Your task to perform on an android device: turn vacation reply on in the gmail app Image 0: 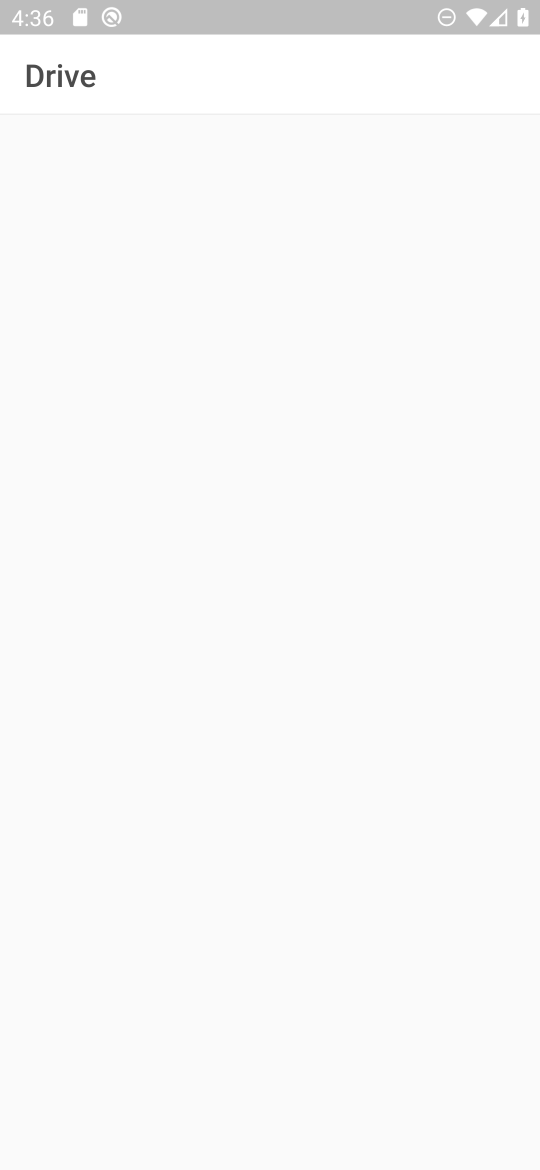
Step 0: press home button
Your task to perform on an android device: turn vacation reply on in the gmail app Image 1: 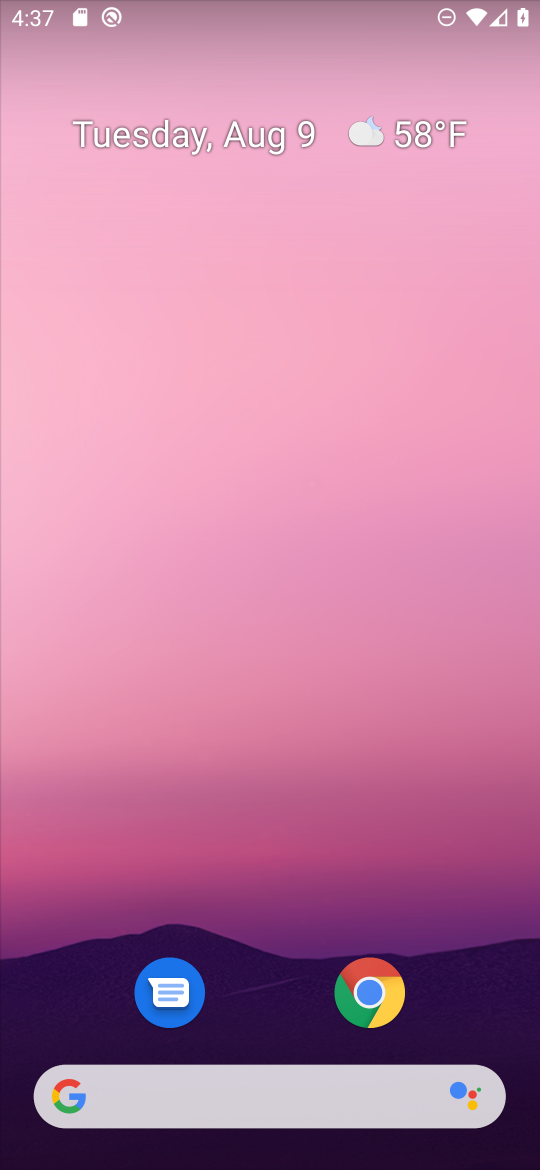
Step 1: drag from (298, 1104) to (208, 97)
Your task to perform on an android device: turn vacation reply on in the gmail app Image 2: 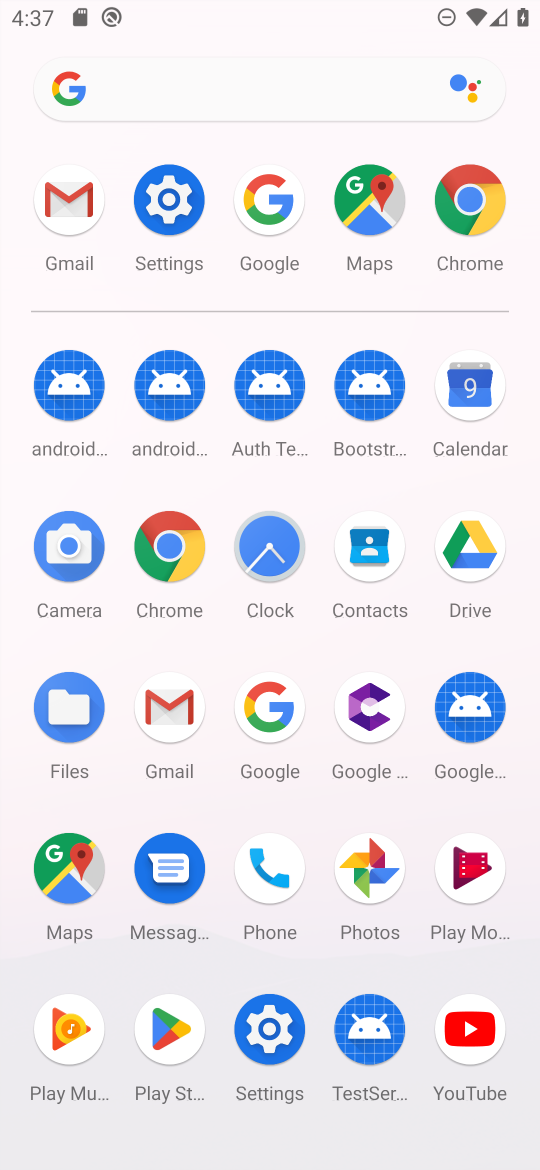
Step 2: click (160, 704)
Your task to perform on an android device: turn vacation reply on in the gmail app Image 3: 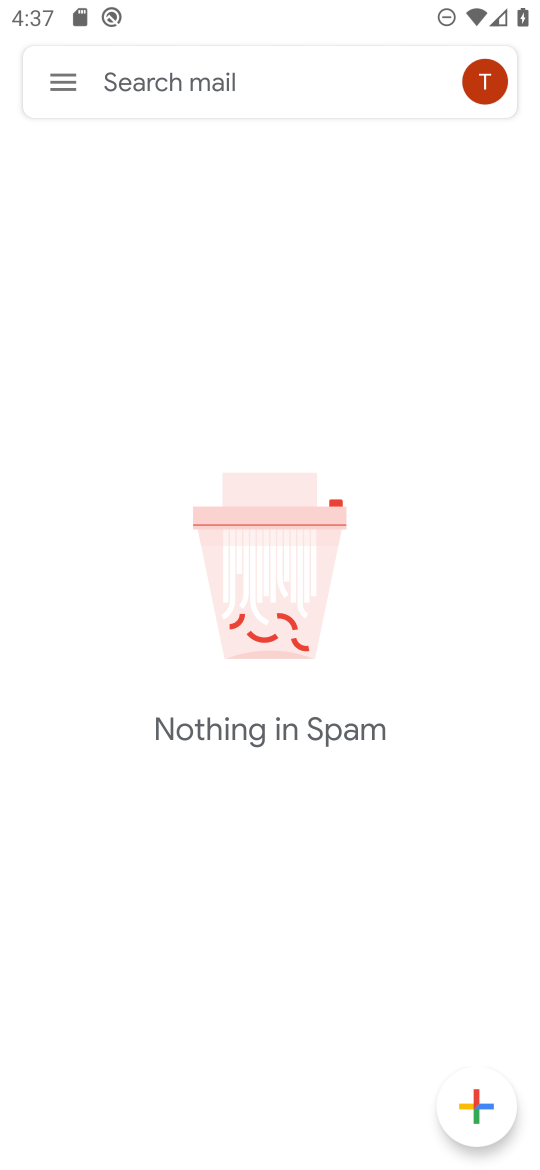
Step 3: click (69, 91)
Your task to perform on an android device: turn vacation reply on in the gmail app Image 4: 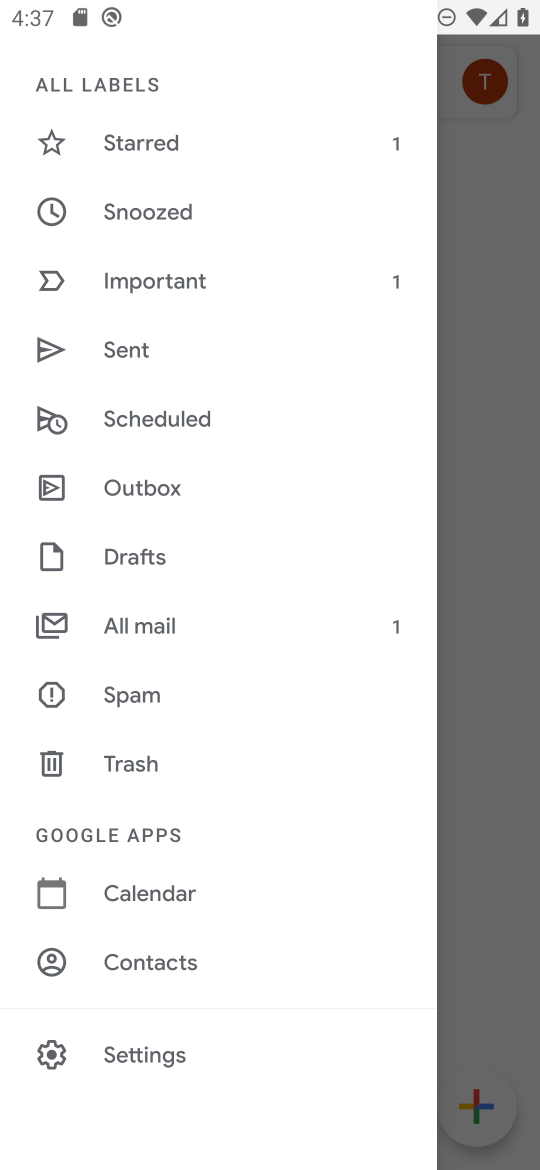
Step 4: click (489, 671)
Your task to perform on an android device: turn vacation reply on in the gmail app Image 5: 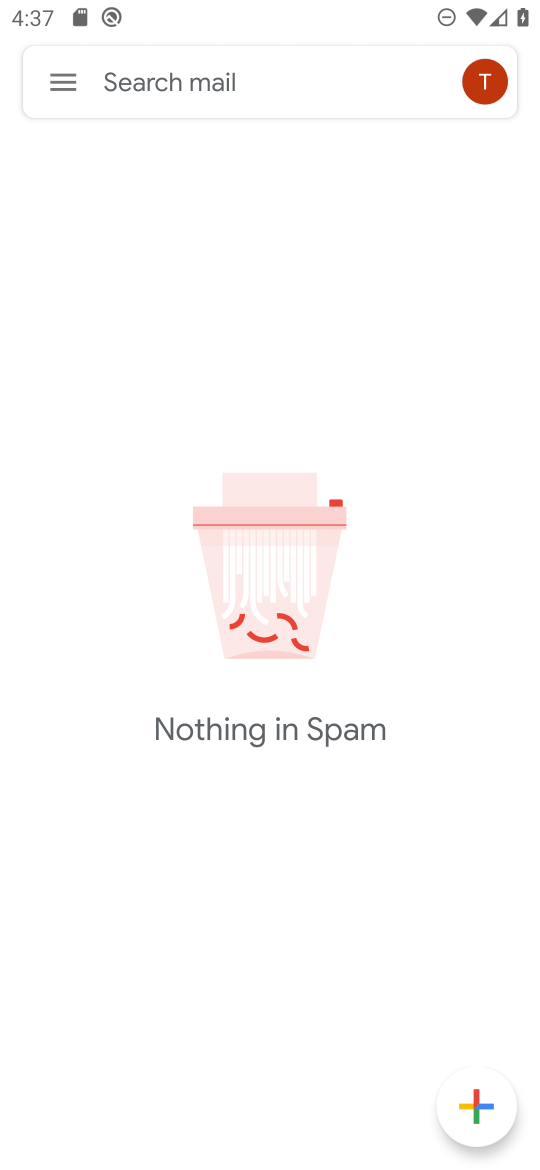
Step 5: click (67, 91)
Your task to perform on an android device: turn vacation reply on in the gmail app Image 6: 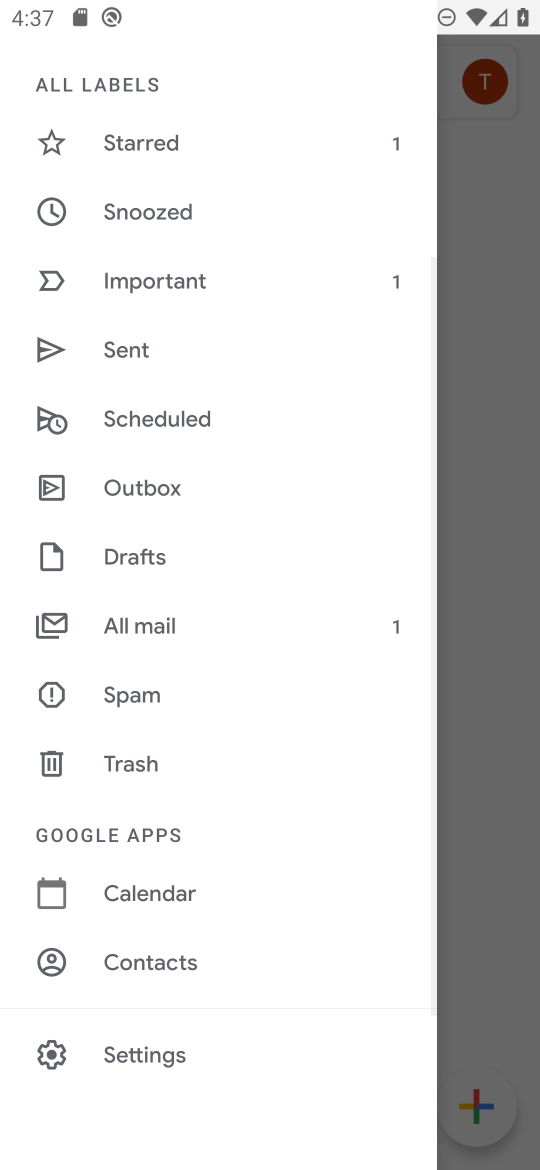
Step 6: click (129, 1045)
Your task to perform on an android device: turn vacation reply on in the gmail app Image 7: 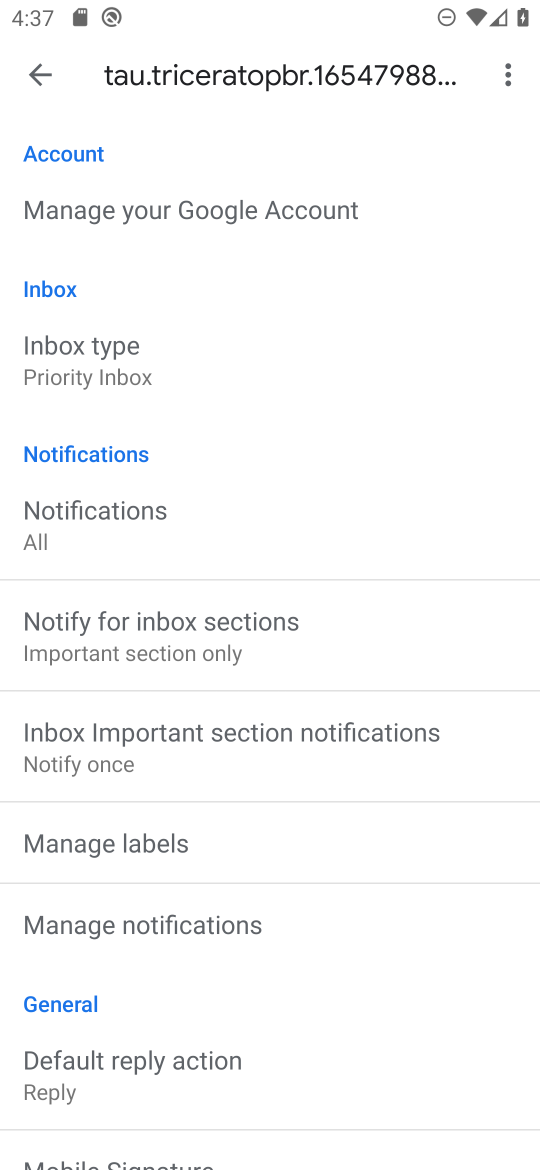
Step 7: drag from (310, 972) to (401, 404)
Your task to perform on an android device: turn vacation reply on in the gmail app Image 8: 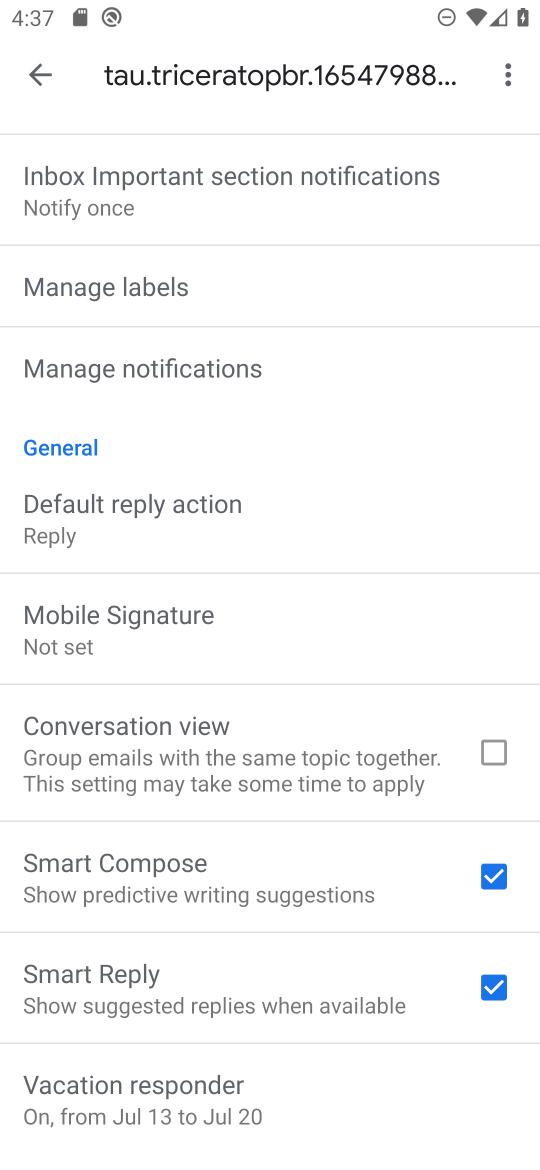
Step 8: click (321, 1086)
Your task to perform on an android device: turn vacation reply on in the gmail app Image 9: 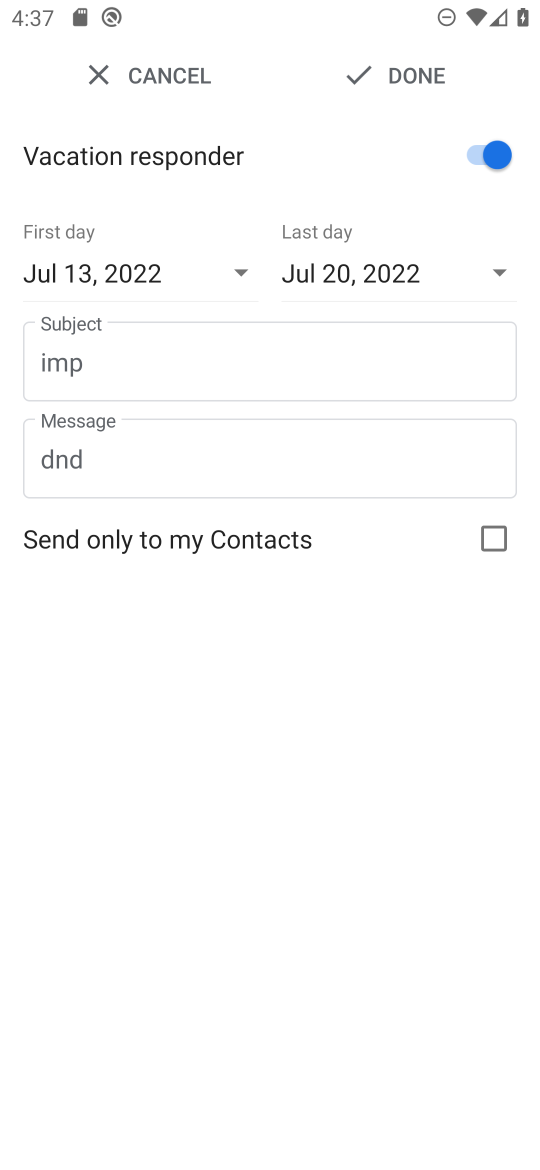
Step 9: click (421, 59)
Your task to perform on an android device: turn vacation reply on in the gmail app Image 10: 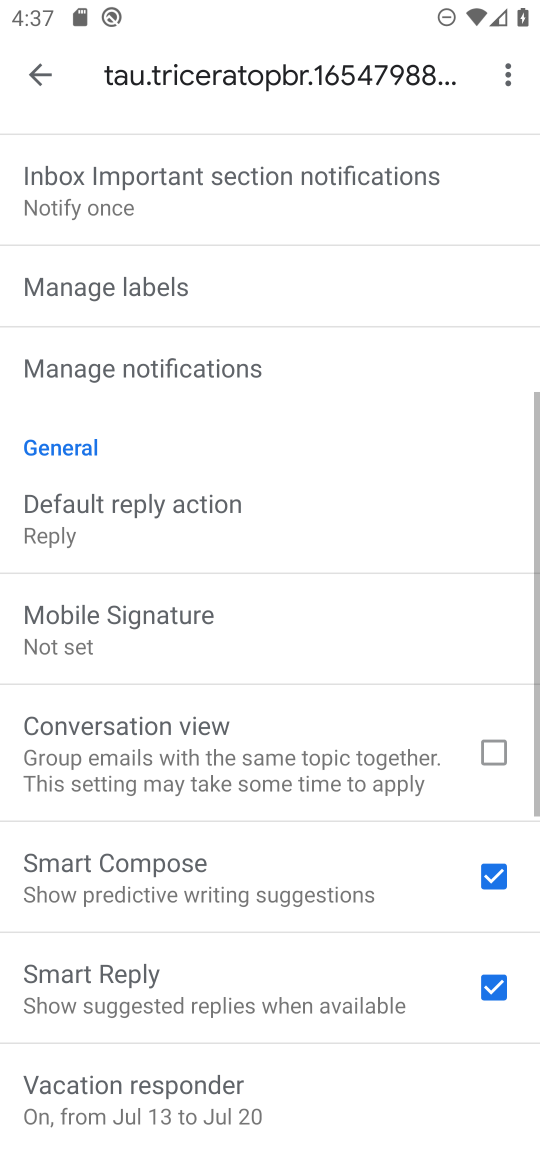
Step 10: task complete